Your task to perform on an android device: Open Chrome and go to the settings page Image 0: 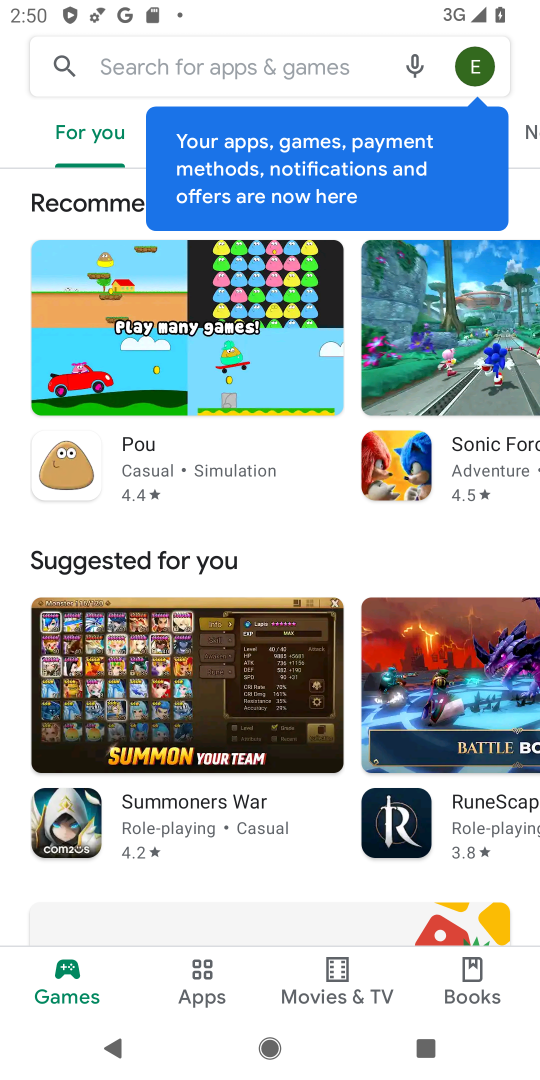
Step 0: press home button
Your task to perform on an android device: Open Chrome and go to the settings page Image 1: 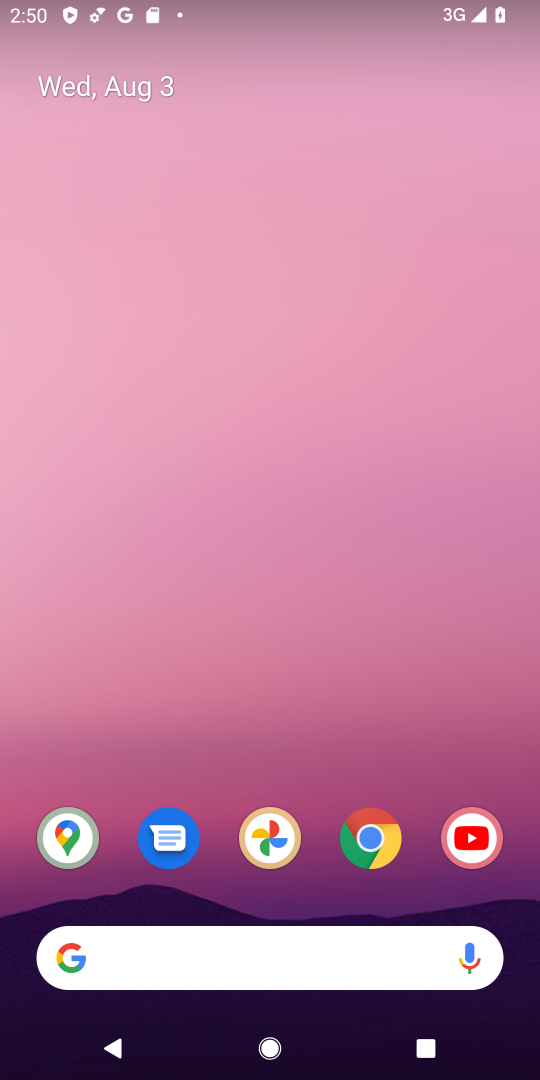
Step 1: click (380, 843)
Your task to perform on an android device: Open Chrome and go to the settings page Image 2: 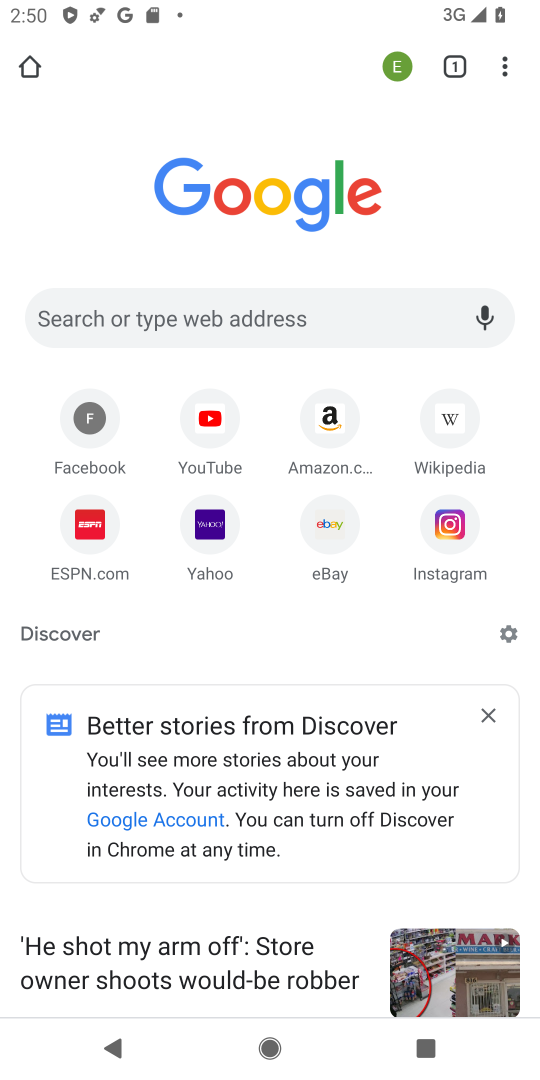
Step 2: click (500, 64)
Your task to perform on an android device: Open Chrome and go to the settings page Image 3: 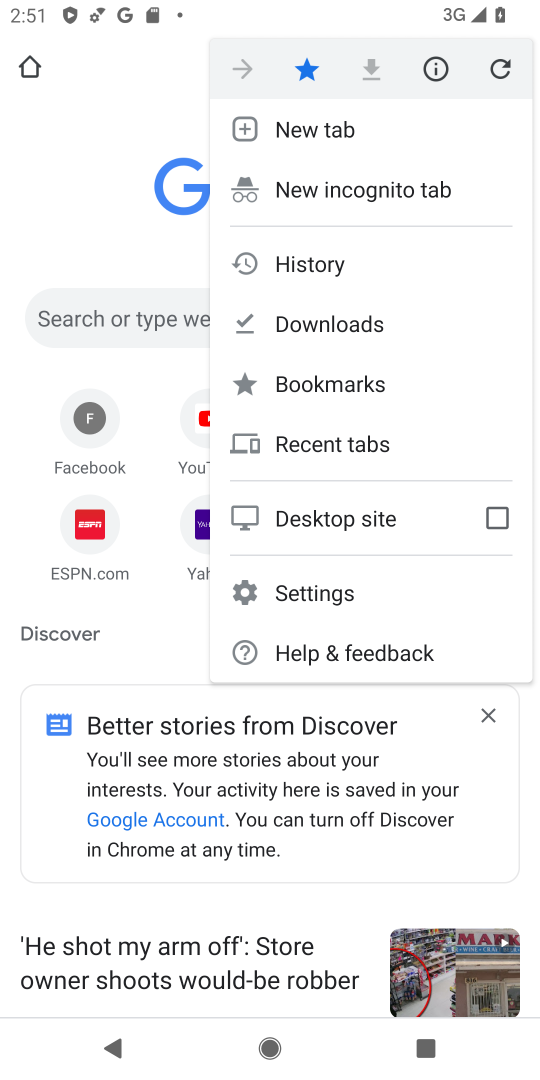
Step 3: click (309, 593)
Your task to perform on an android device: Open Chrome and go to the settings page Image 4: 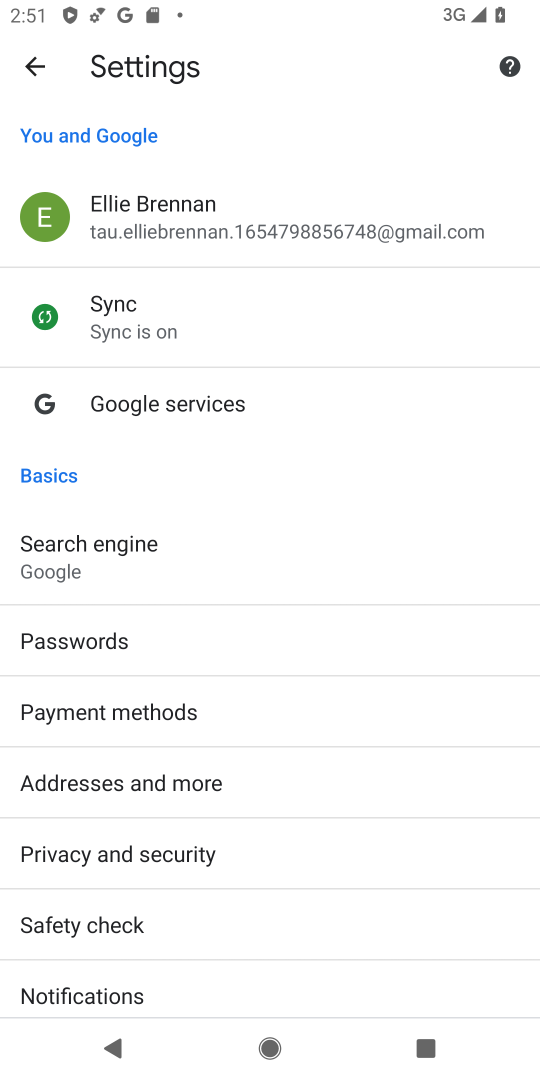
Step 4: task complete